Your task to perform on an android device: Open Android settings Image 0: 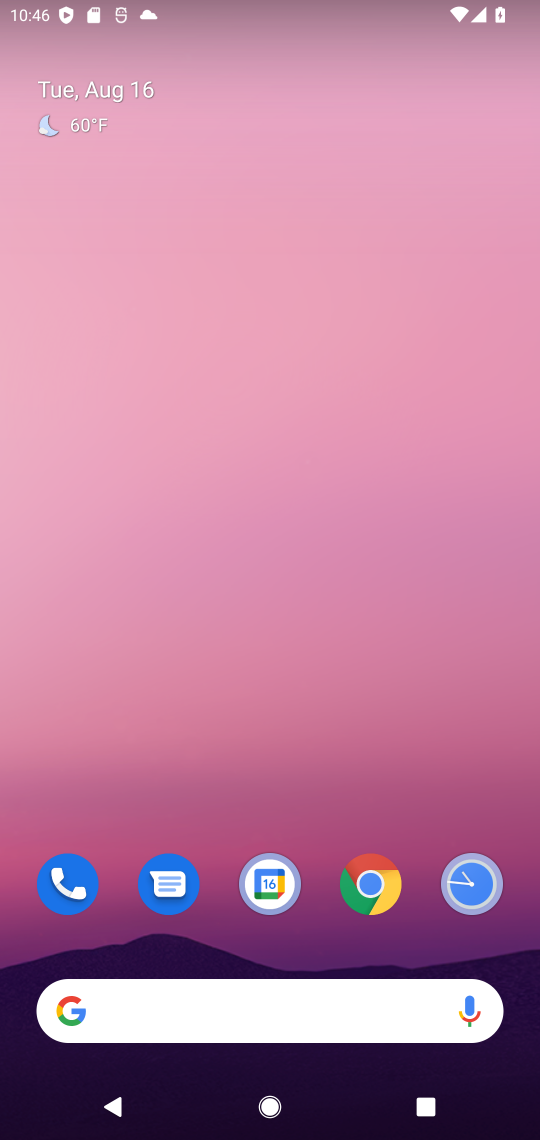
Step 0: drag from (237, 863) to (246, 19)
Your task to perform on an android device: Open Android settings Image 1: 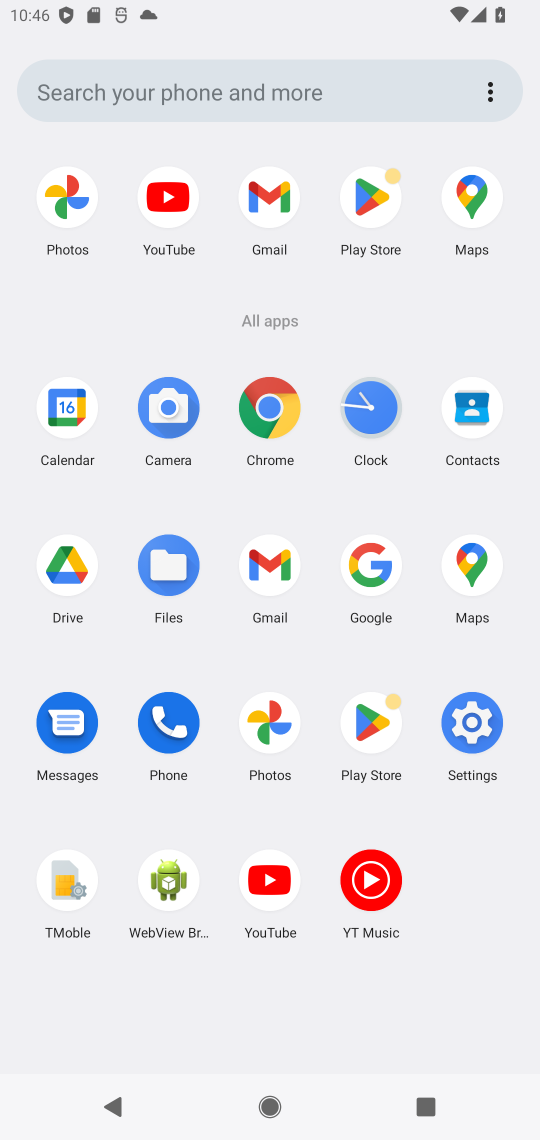
Step 1: click (474, 735)
Your task to perform on an android device: Open Android settings Image 2: 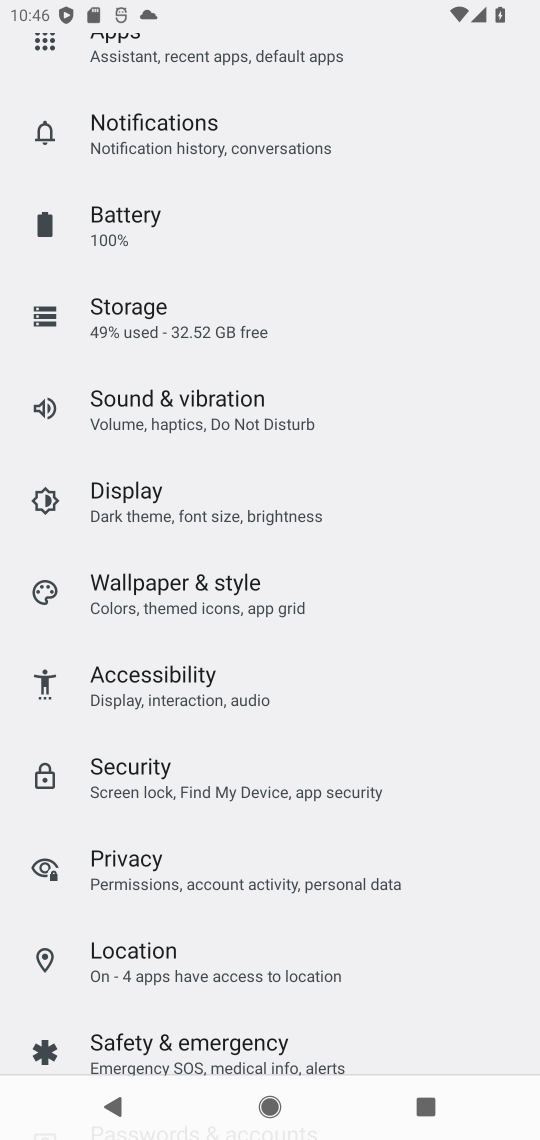
Step 2: drag from (235, 913) to (235, 166)
Your task to perform on an android device: Open Android settings Image 3: 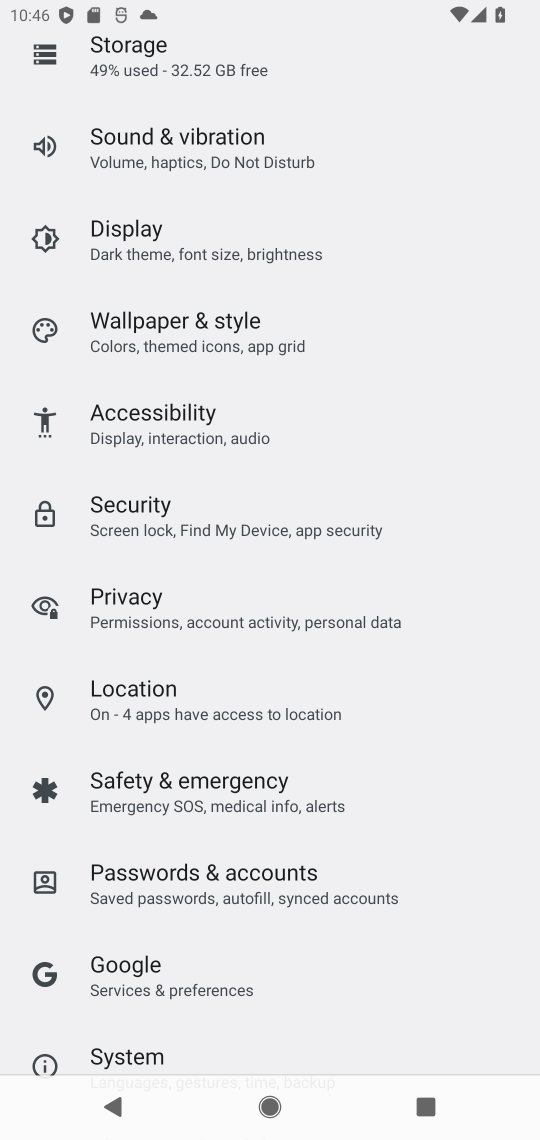
Step 3: drag from (190, 983) to (215, 220)
Your task to perform on an android device: Open Android settings Image 4: 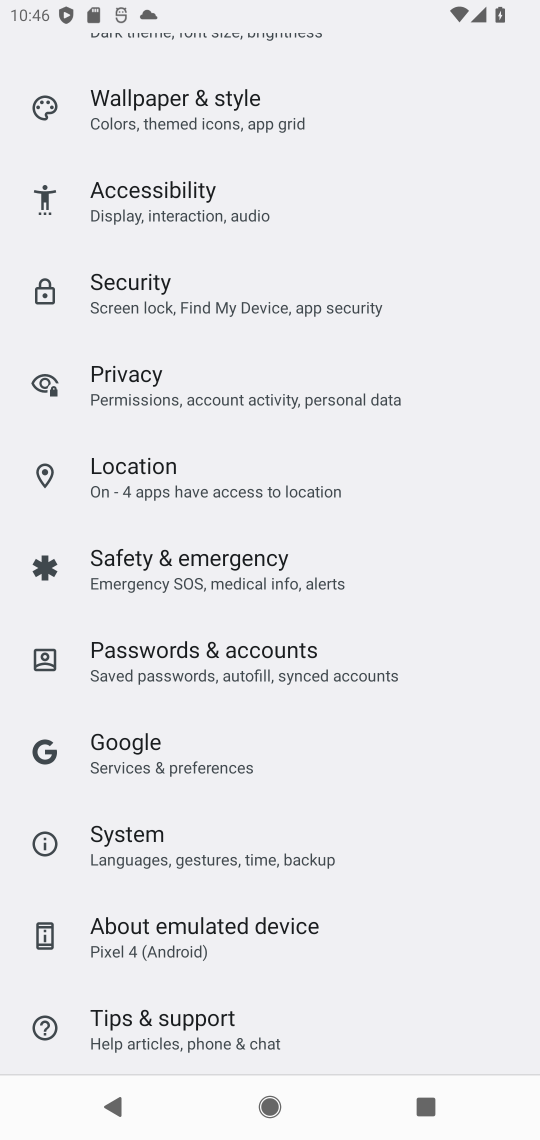
Step 4: click (180, 947)
Your task to perform on an android device: Open Android settings Image 5: 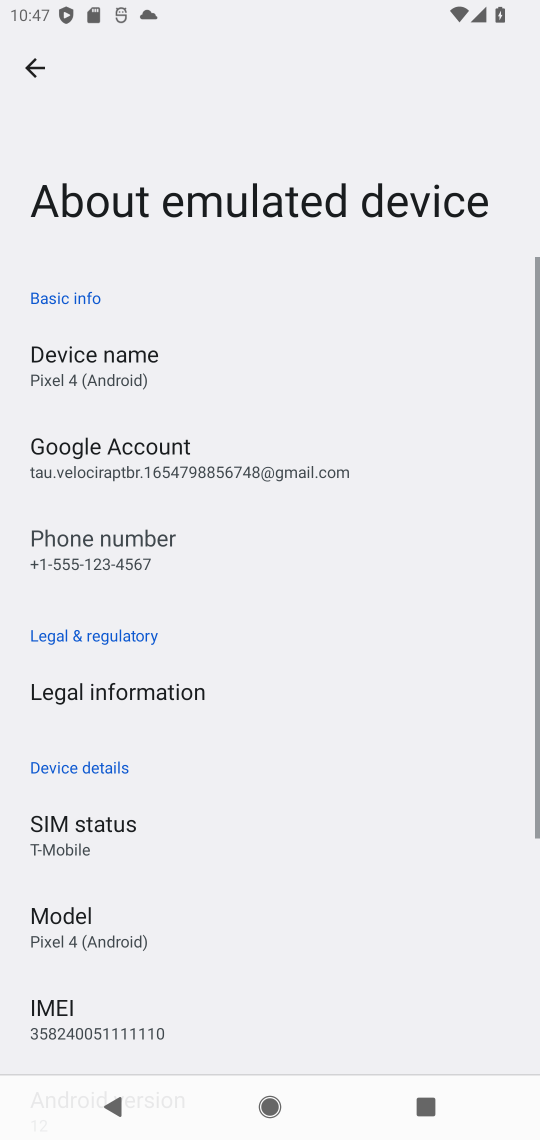
Step 5: task complete